Your task to perform on an android device: When is my next meeting? Image 0: 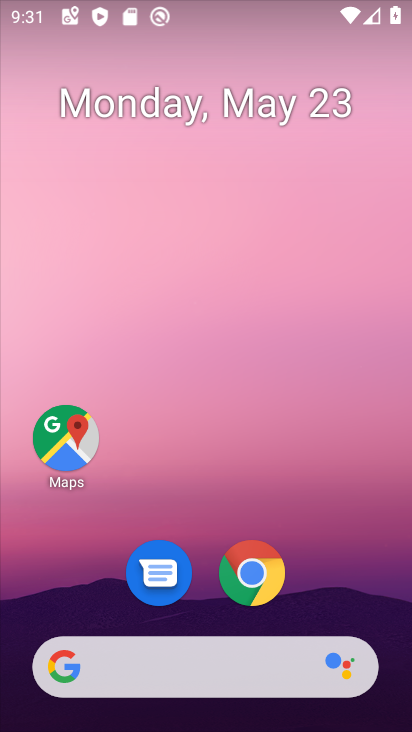
Step 0: drag from (377, 611) to (388, 177)
Your task to perform on an android device: When is my next meeting? Image 1: 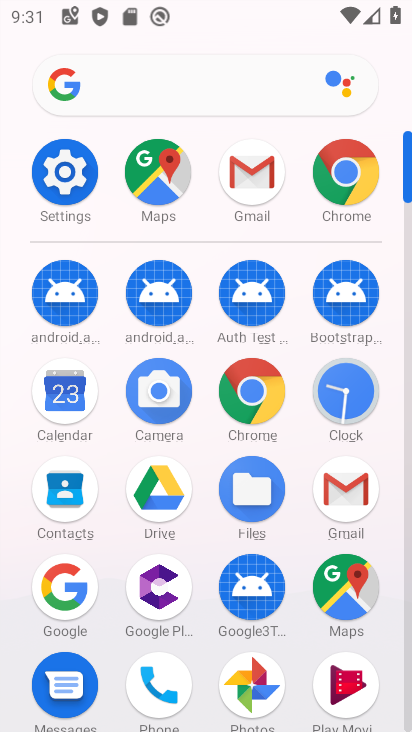
Step 1: click (52, 394)
Your task to perform on an android device: When is my next meeting? Image 2: 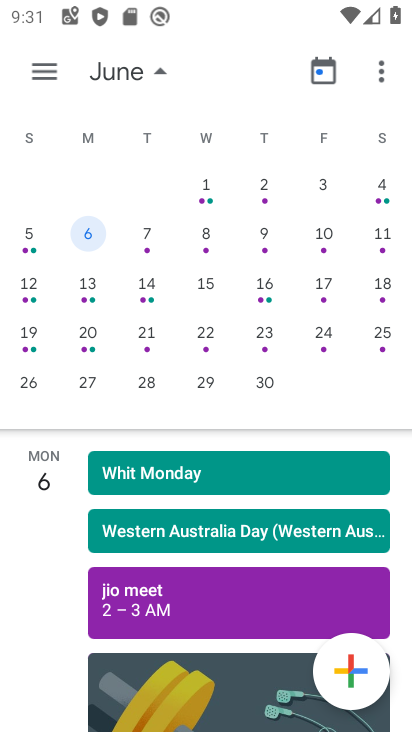
Step 2: drag from (55, 168) to (365, 214)
Your task to perform on an android device: When is my next meeting? Image 3: 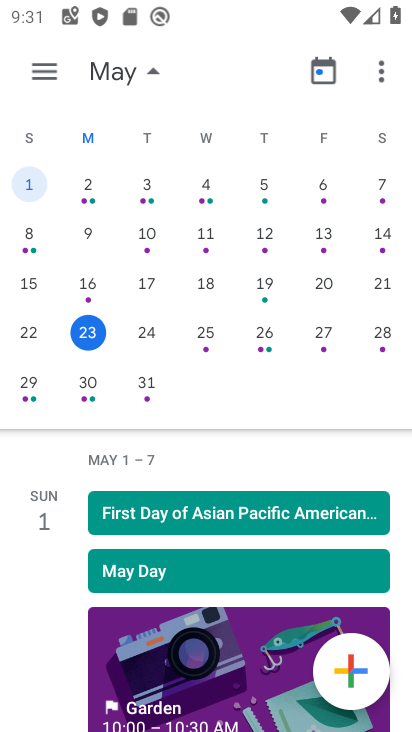
Step 3: click (215, 341)
Your task to perform on an android device: When is my next meeting? Image 4: 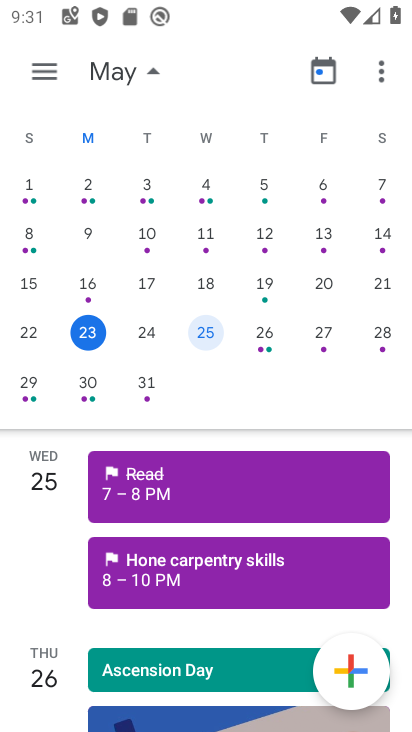
Step 4: click (223, 486)
Your task to perform on an android device: When is my next meeting? Image 5: 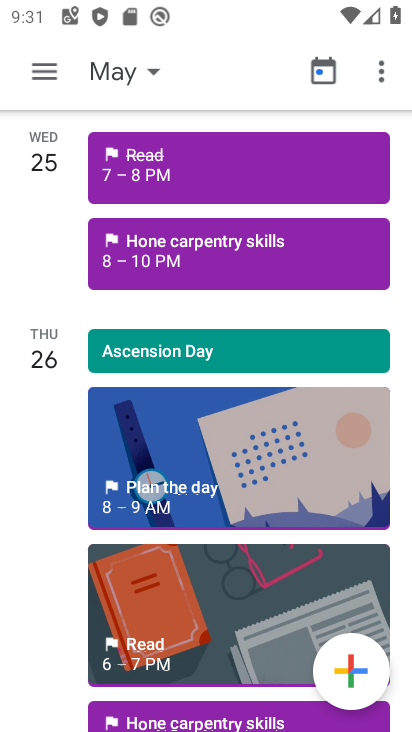
Step 5: click (209, 179)
Your task to perform on an android device: When is my next meeting? Image 6: 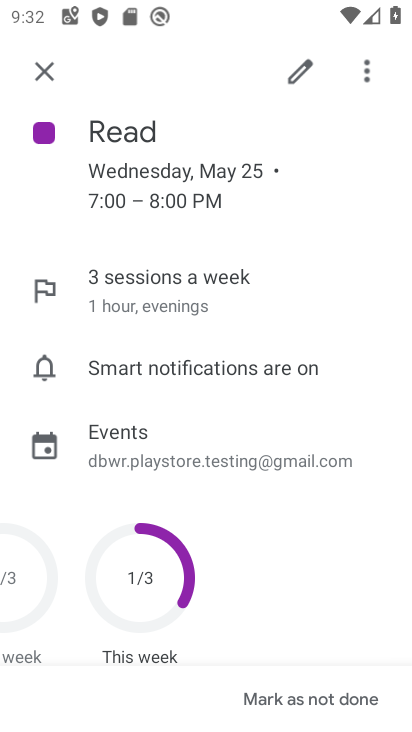
Step 6: task complete